Your task to perform on an android device: turn on translation in the chrome app Image 0: 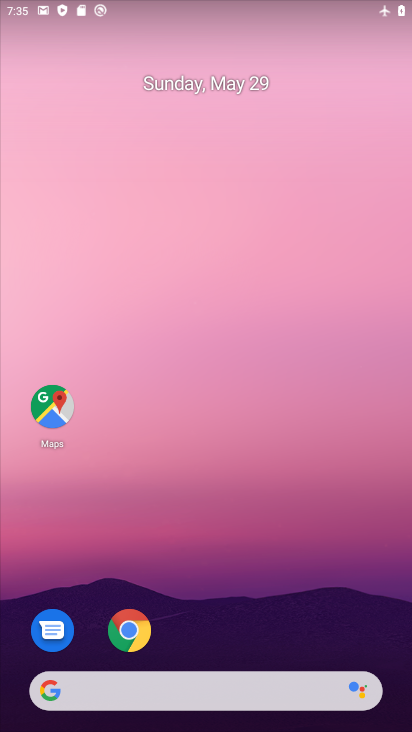
Step 0: click (128, 631)
Your task to perform on an android device: turn on translation in the chrome app Image 1: 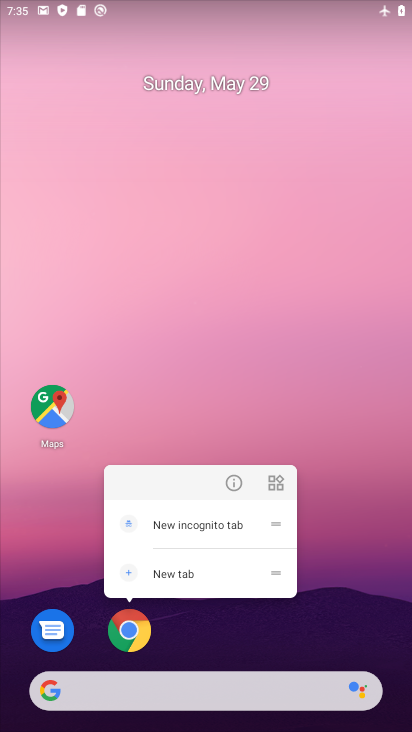
Step 1: click (128, 631)
Your task to perform on an android device: turn on translation in the chrome app Image 2: 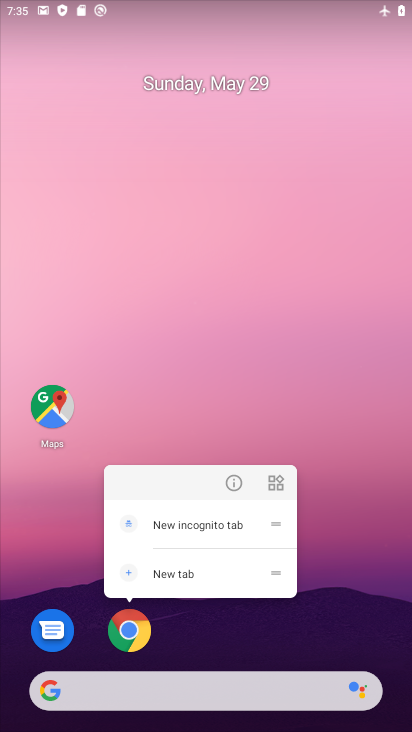
Step 2: click (129, 615)
Your task to perform on an android device: turn on translation in the chrome app Image 3: 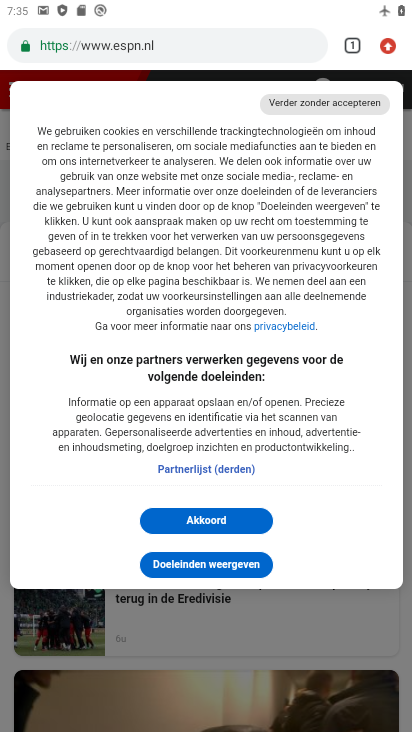
Step 3: click (380, 36)
Your task to perform on an android device: turn on translation in the chrome app Image 4: 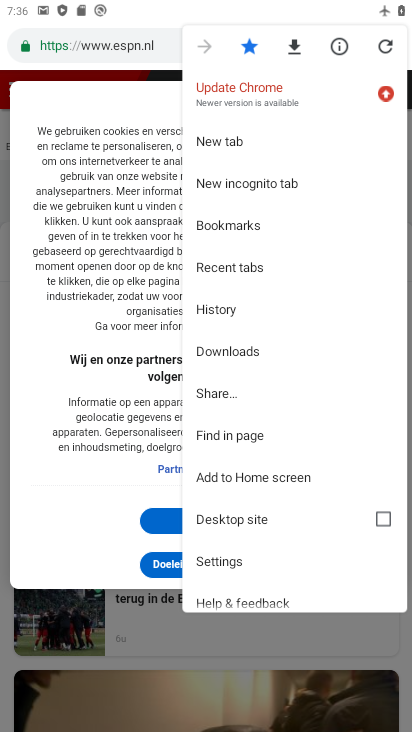
Step 4: click (214, 550)
Your task to perform on an android device: turn on translation in the chrome app Image 5: 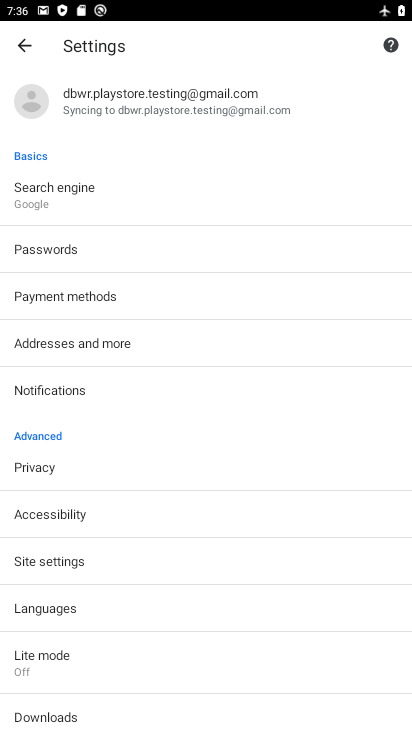
Step 5: click (86, 610)
Your task to perform on an android device: turn on translation in the chrome app Image 6: 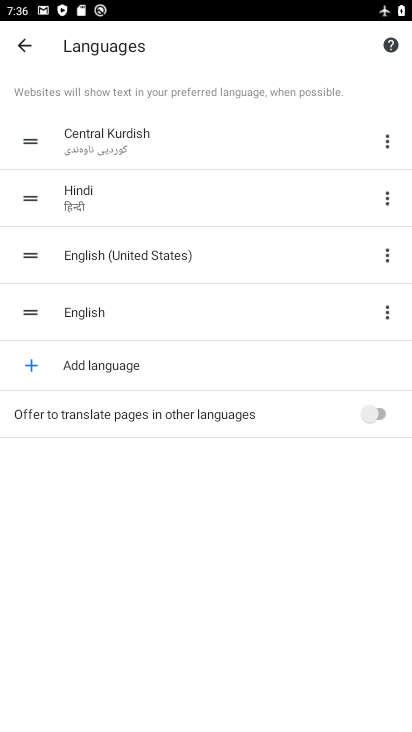
Step 6: click (368, 406)
Your task to perform on an android device: turn on translation in the chrome app Image 7: 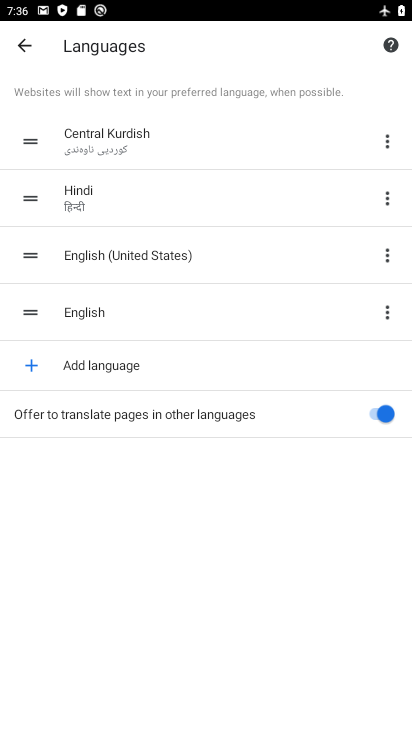
Step 7: task complete